Your task to perform on an android device: Open notification settings Image 0: 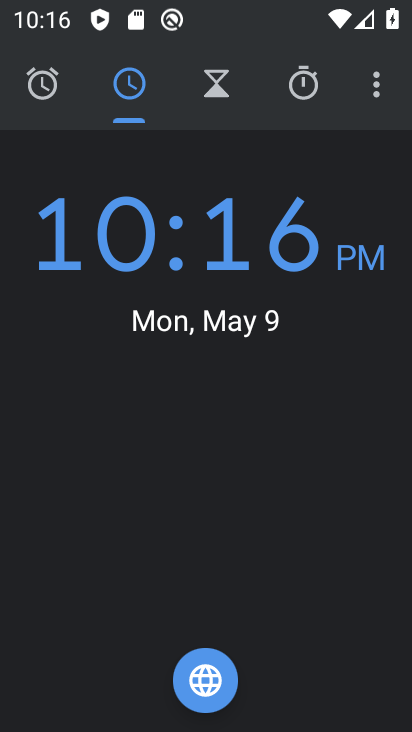
Step 0: press home button
Your task to perform on an android device: Open notification settings Image 1: 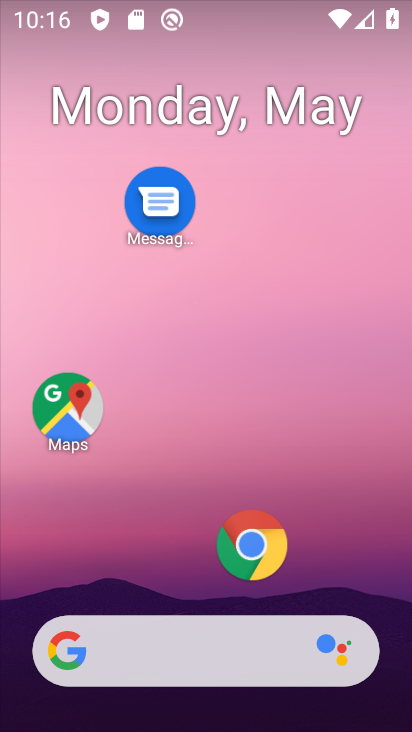
Step 1: drag from (366, 562) to (320, 53)
Your task to perform on an android device: Open notification settings Image 2: 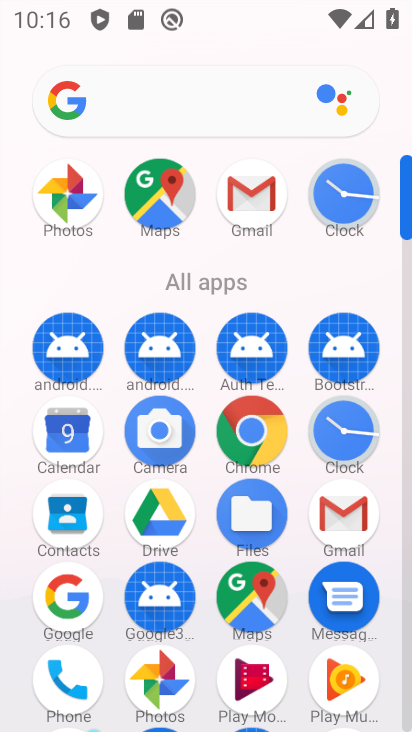
Step 2: drag from (209, 641) to (228, 221)
Your task to perform on an android device: Open notification settings Image 3: 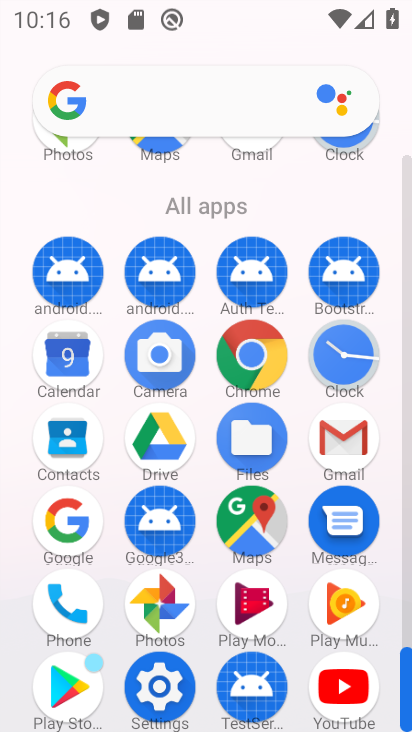
Step 3: click (162, 680)
Your task to perform on an android device: Open notification settings Image 4: 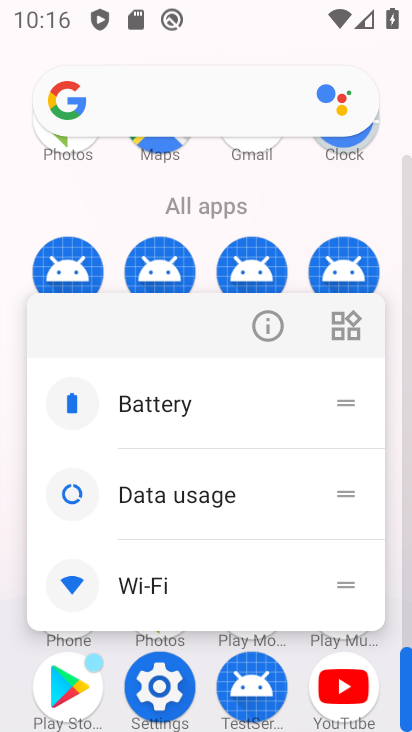
Step 4: click (150, 674)
Your task to perform on an android device: Open notification settings Image 5: 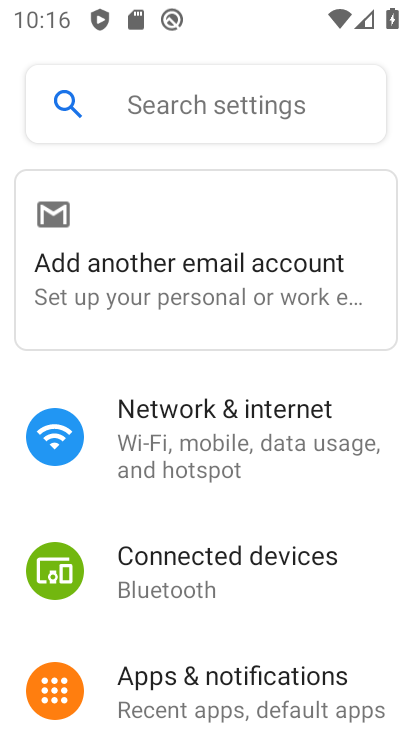
Step 5: click (198, 673)
Your task to perform on an android device: Open notification settings Image 6: 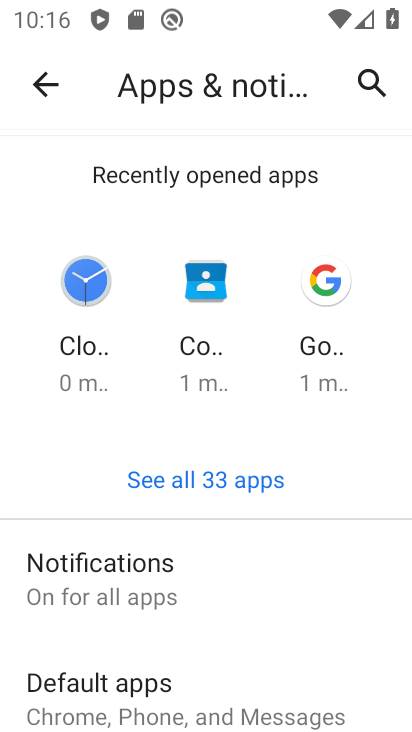
Step 6: click (161, 599)
Your task to perform on an android device: Open notification settings Image 7: 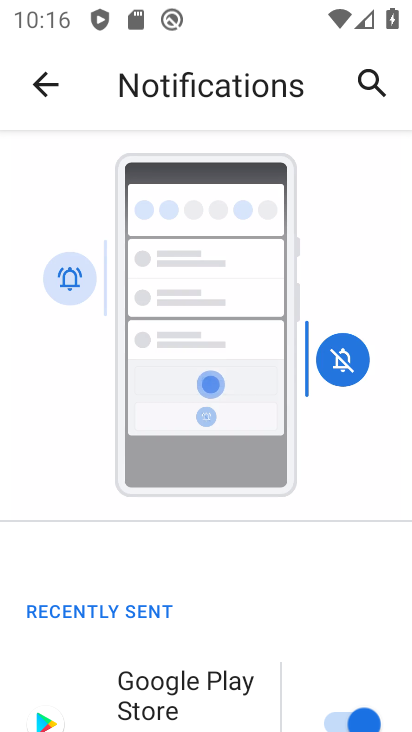
Step 7: task complete